Your task to perform on an android device: turn on the 24-hour format for clock Image 0: 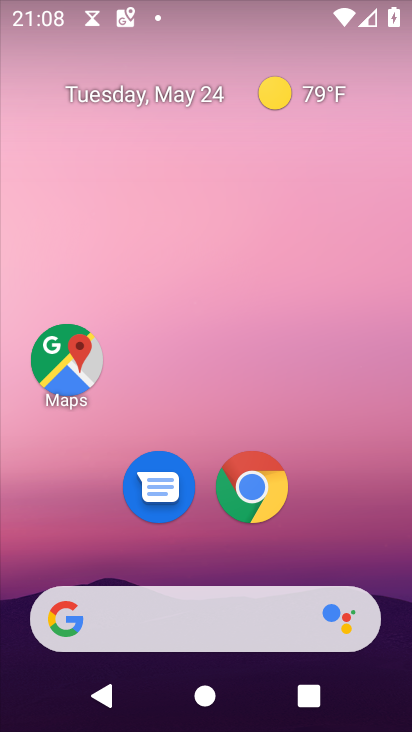
Step 0: press home button
Your task to perform on an android device: turn on the 24-hour format for clock Image 1: 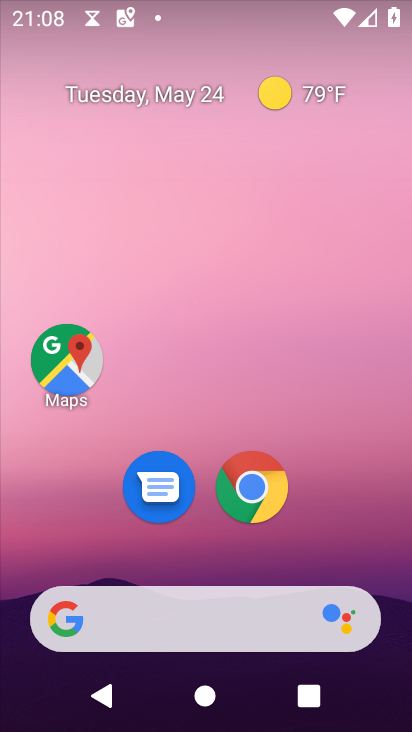
Step 1: drag from (327, 548) to (309, 6)
Your task to perform on an android device: turn on the 24-hour format for clock Image 2: 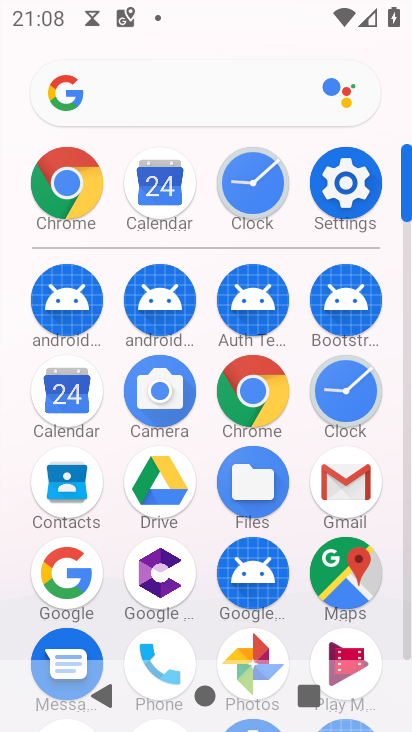
Step 2: click (358, 419)
Your task to perform on an android device: turn on the 24-hour format for clock Image 3: 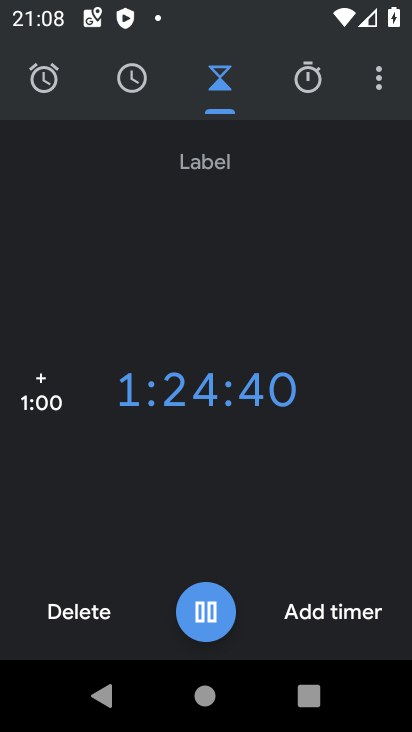
Step 3: click (379, 87)
Your task to perform on an android device: turn on the 24-hour format for clock Image 4: 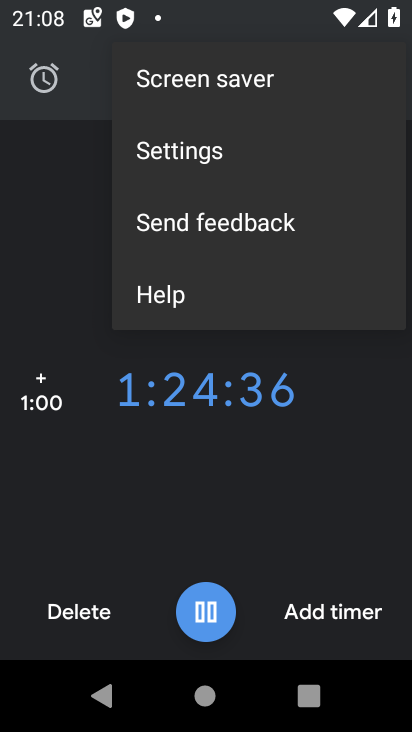
Step 4: click (241, 150)
Your task to perform on an android device: turn on the 24-hour format for clock Image 5: 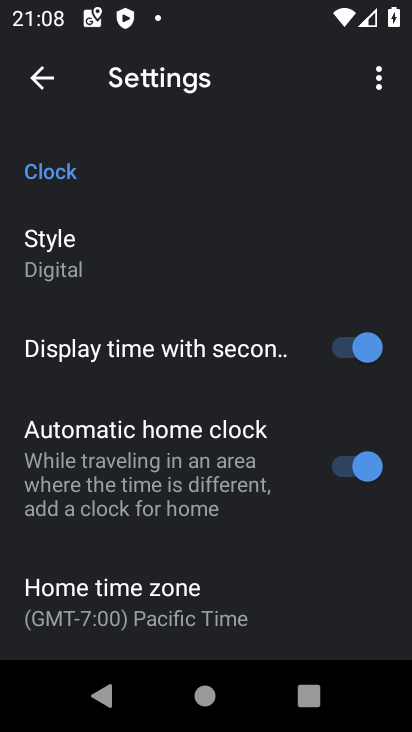
Step 5: drag from (296, 616) to (296, 418)
Your task to perform on an android device: turn on the 24-hour format for clock Image 6: 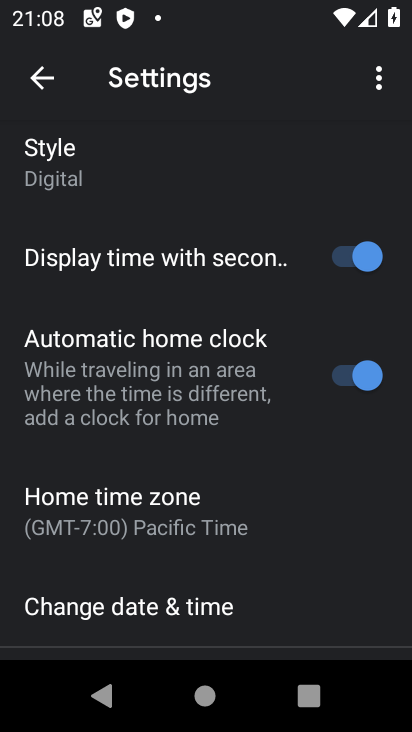
Step 6: click (198, 625)
Your task to perform on an android device: turn on the 24-hour format for clock Image 7: 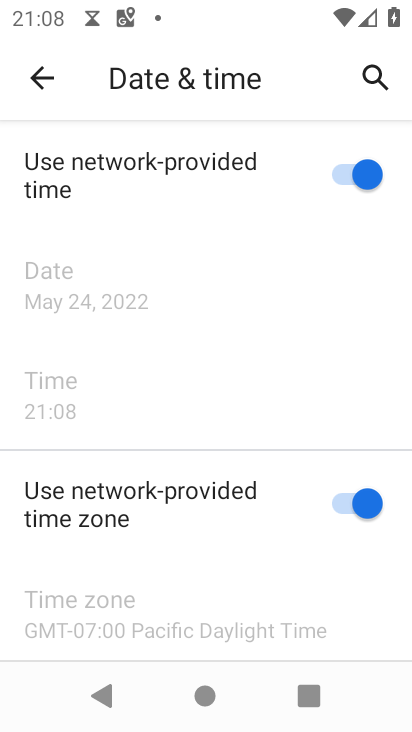
Step 7: drag from (225, 585) to (239, 143)
Your task to perform on an android device: turn on the 24-hour format for clock Image 8: 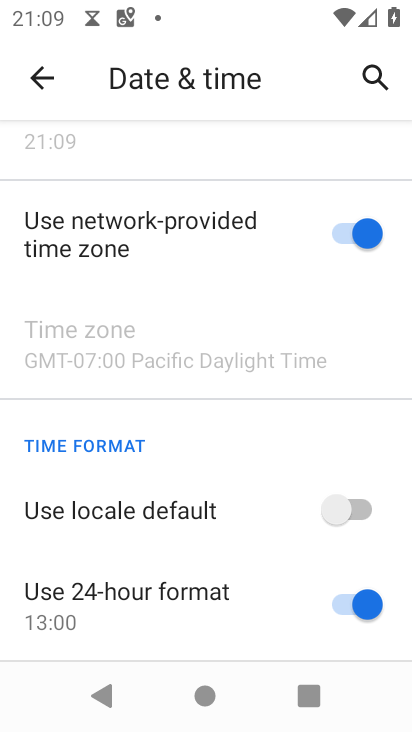
Step 8: click (287, 512)
Your task to perform on an android device: turn on the 24-hour format for clock Image 9: 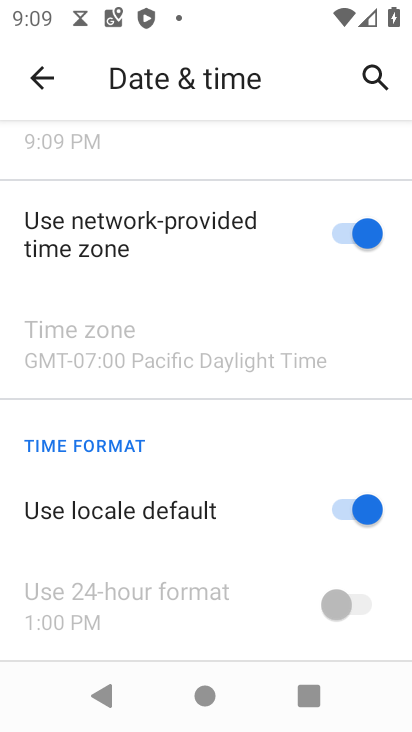
Step 9: click (328, 499)
Your task to perform on an android device: turn on the 24-hour format for clock Image 10: 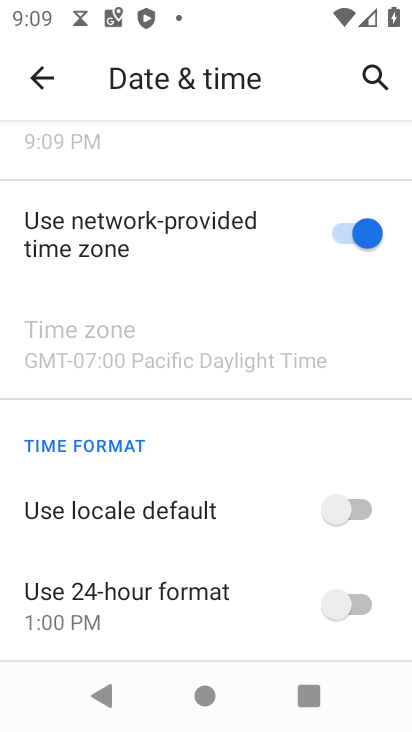
Step 10: click (324, 612)
Your task to perform on an android device: turn on the 24-hour format for clock Image 11: 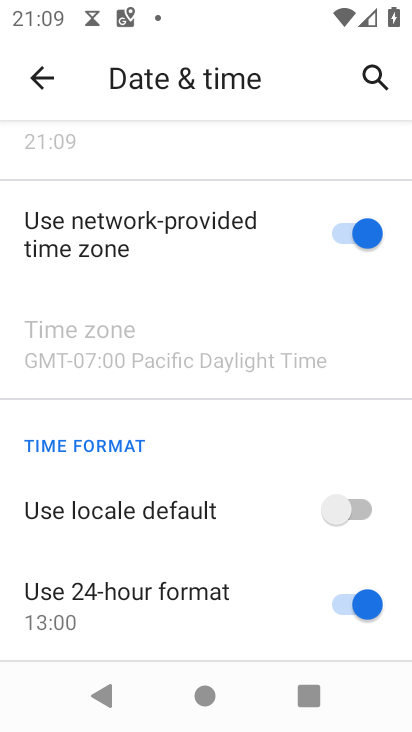
Step 11: task complete